Your task to perform on an android device: Open settings on Google Maps Image 0: 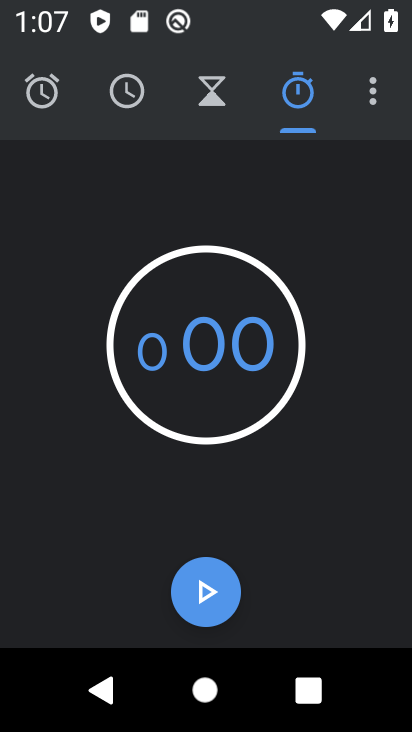
Step 0: press home button
Your task to perform on an android device: Open settings on Google Maps Image 1: 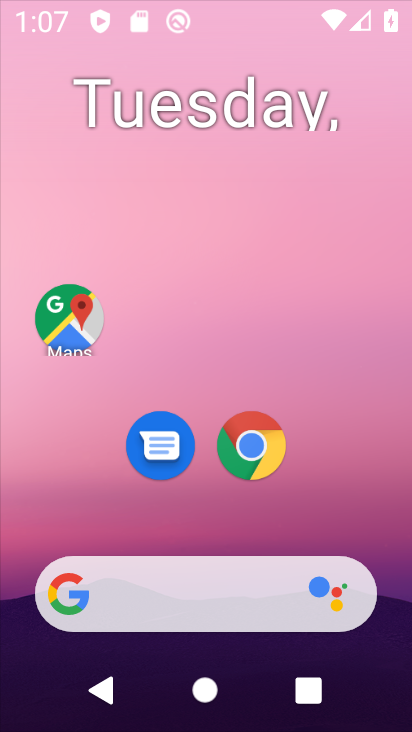
Step 1: press home button
Your task to perform on an android device: Open settings on Google Maps Image 2: 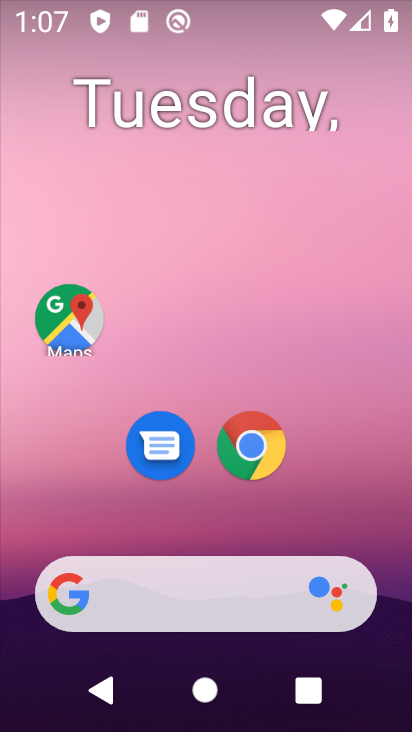
Step 2: click (78, 311)
Your task to perform on an android device: Open settings on Google Maps Image 3: 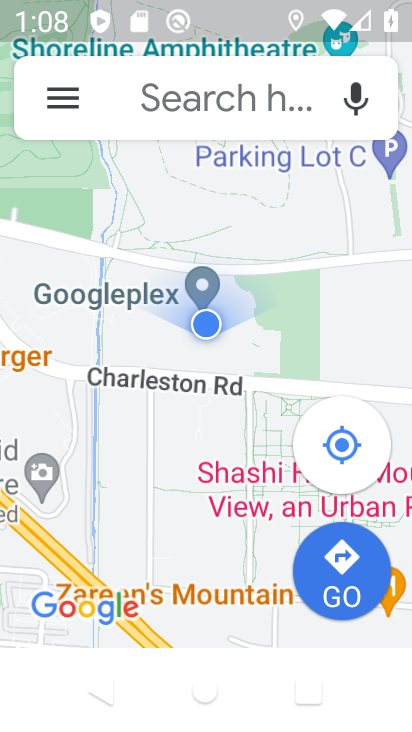
Step 3: task complete